Your task to perform on an android device: turn off picture-in-picture Image 0: 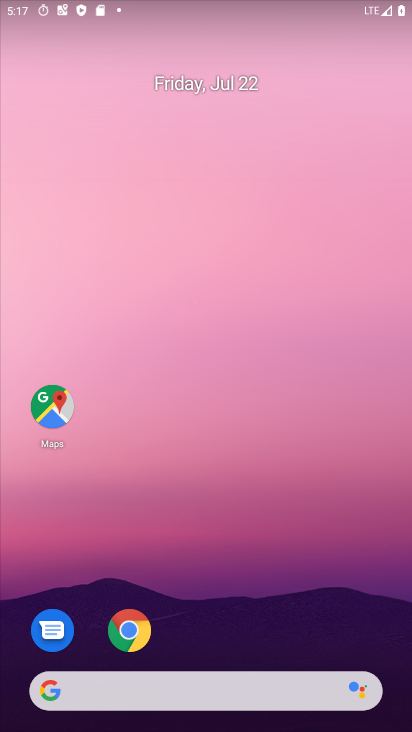
Step 0: drag from (307, 688) to (330, 37)
Your task to perform on an android device: turn off picture-in-picture Image 1: 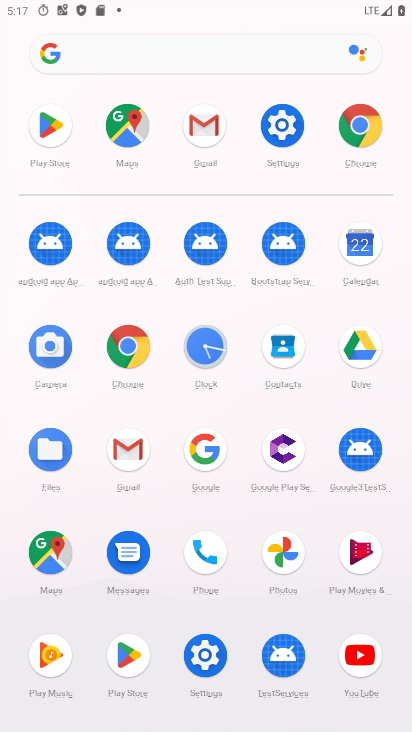
Step 1: click (276, 116)
Your task to perform on an android device: turn off picture-in-picture Image 2: 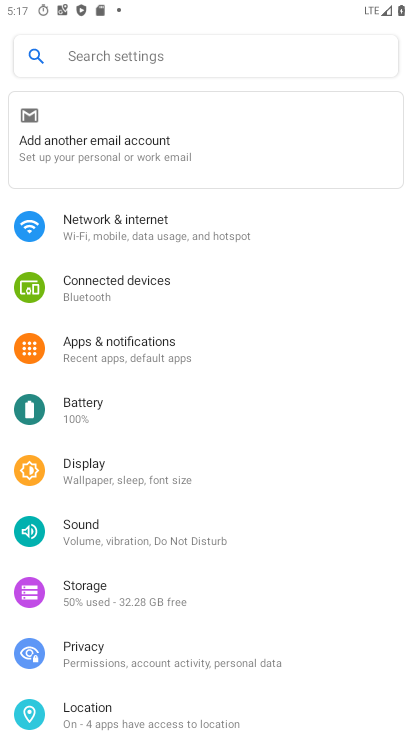
Step 2: drag from (171, 689) to (157, 95)
Your task to perform on an android device: turn off picture-in-picture Image 3: 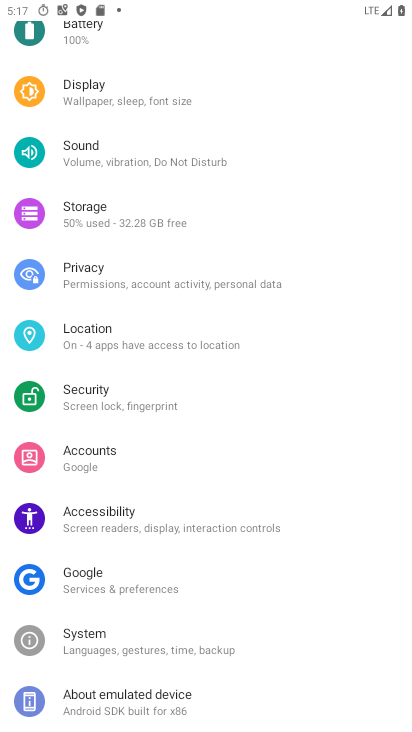
Step 3: drag from (146, 210) to (164, 688)
Your task to perform on an android device: turn off picture-in-picture Image 4: 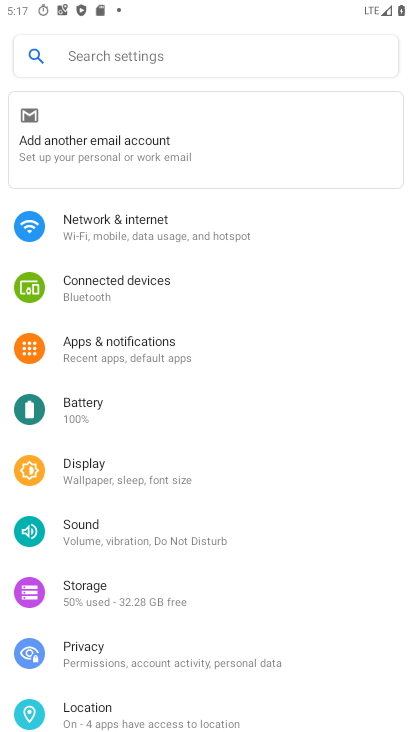
Step 4: click (142, 358)
Your task to perform on an android device: turn off picture-in-picture Image 5: 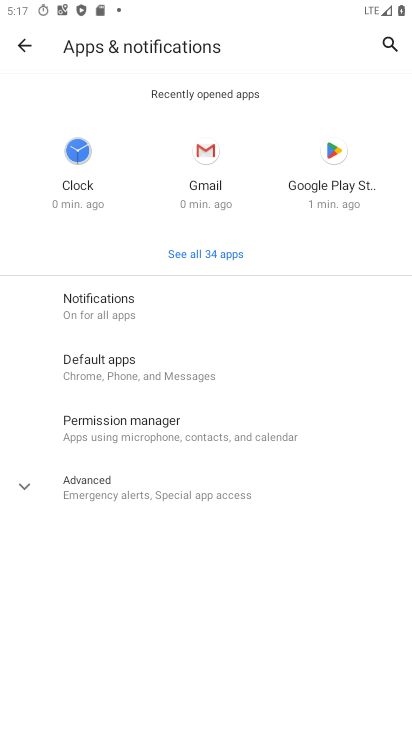
Step 5: click (111, 494)
Your task to perform on an android device: turn off picture-in-picture Image 6: 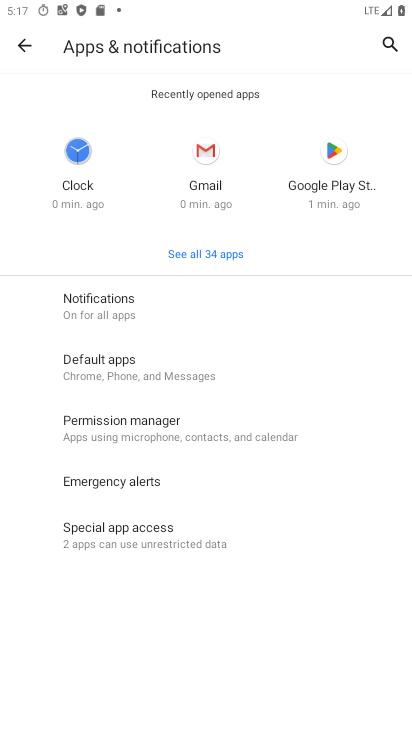
Step 6: click (139, 541)
Your task to perform on an android device: turn off picture-in-picture Image 7: 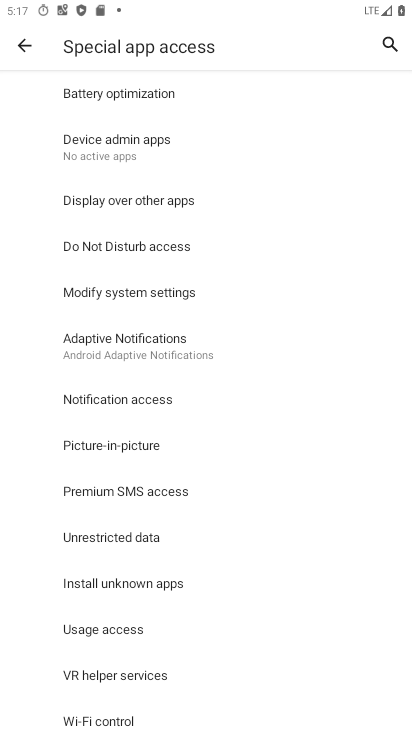
Step 7: click (83, 435)
Your task to perform on an android device: turn off picture-in-picture Image 8: 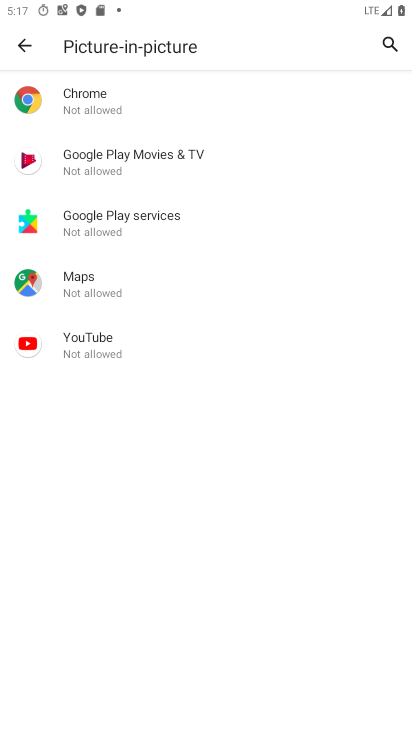
Step 8: task complete